Your task to perform on an android device: delete location history Image 0: 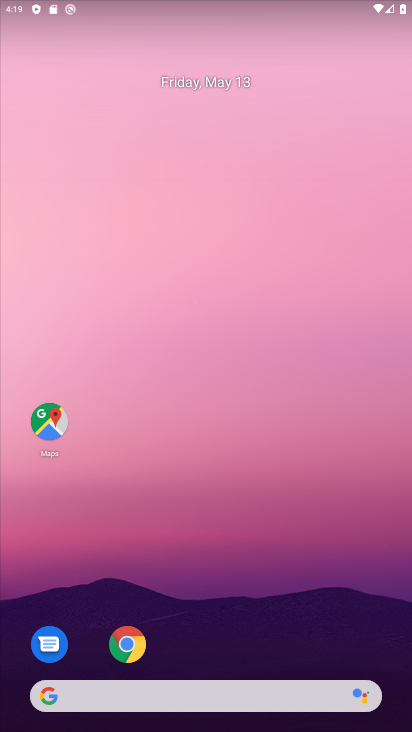
Step 0: click (50, 424)
Your task to perform on an android device: delete location history Image 1: 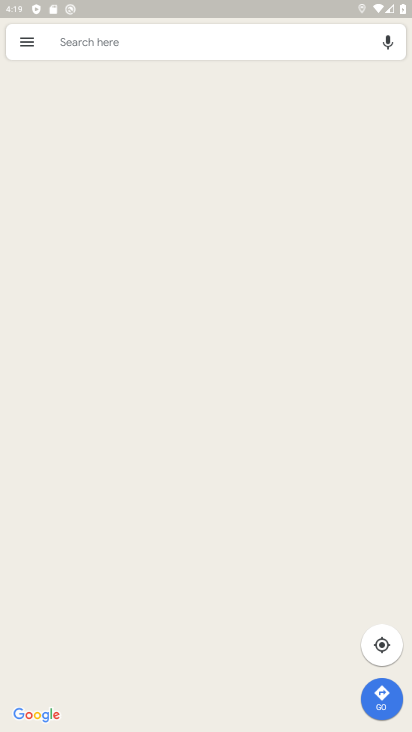
Step 1: click (28, 43)
Your task to perform on an android device: delete location history Image 2: 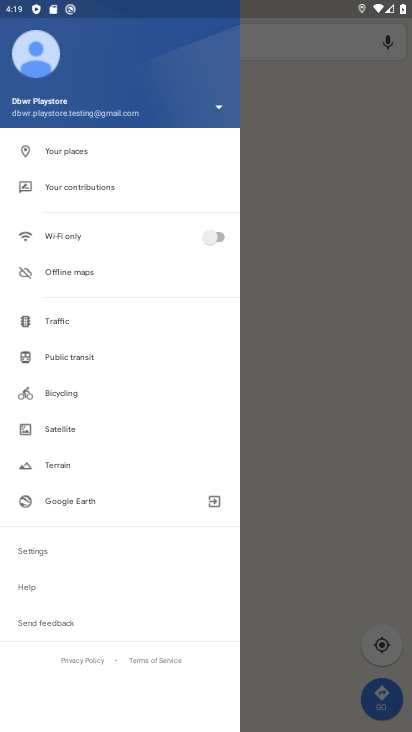
Step 2: click (303, 168)
Your task to perform on an android device: delete location history Image 3: 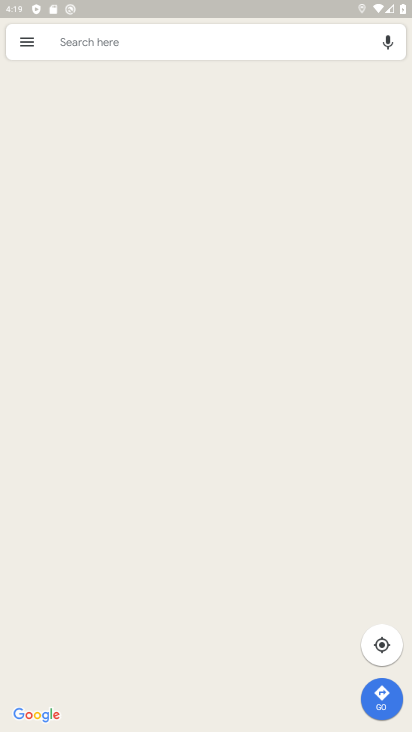
Step 3: click (25, 43)
Your task to perform on an android device: delete location history Image 4: 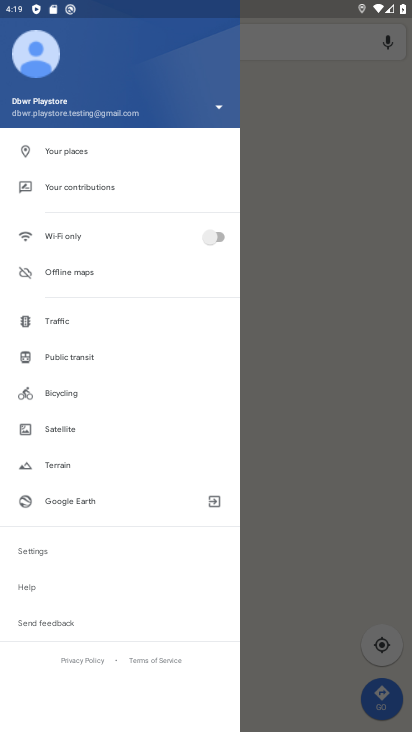
Step 4: click (221, 111)
Your task to perform on an android device: delete location history Image 5: 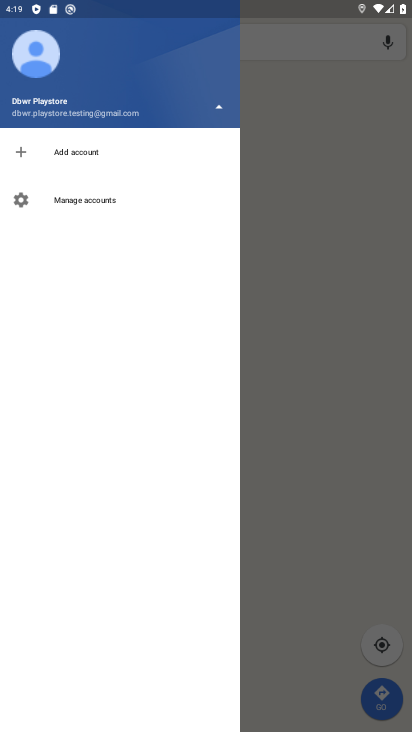
Step 5: click (221, 111)
Your task to perform on an android device: delete location history Image 6: 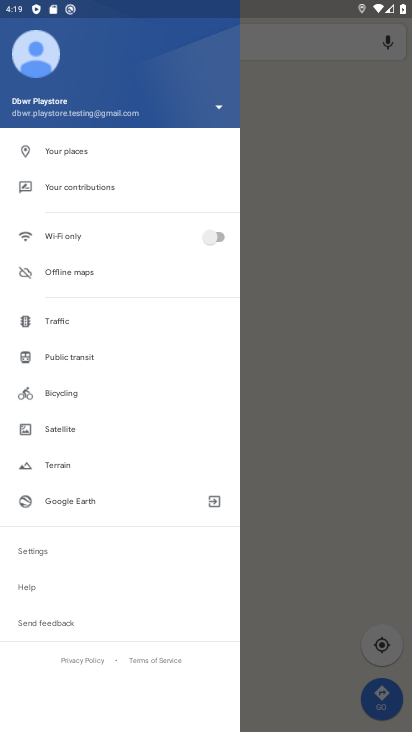
Step 6: click (106, 157)
Your task to perform on an android device: delete location history Image 7: 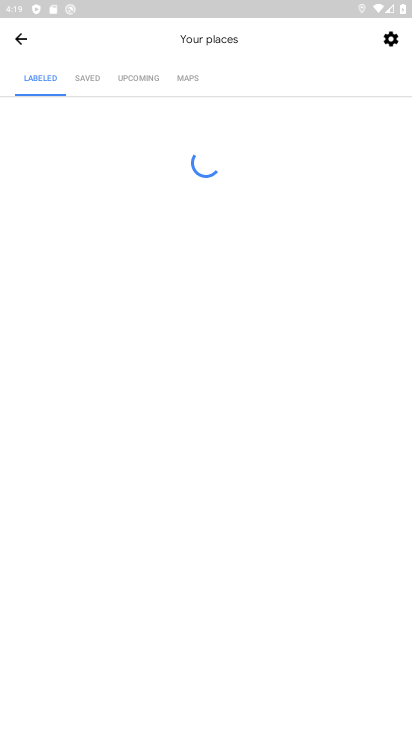
Step 7: task complete